Your task to perform on an android device: check android version Image 0: 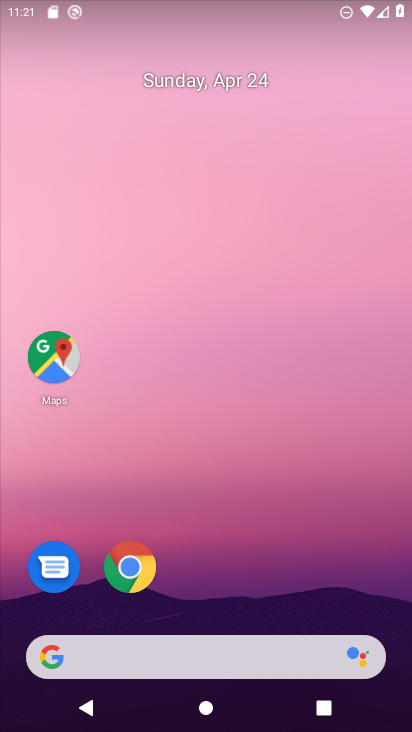
Step 0: drag from (91, 425) to (109, 10)
Your task to perform on an android device: check android version Image 1: 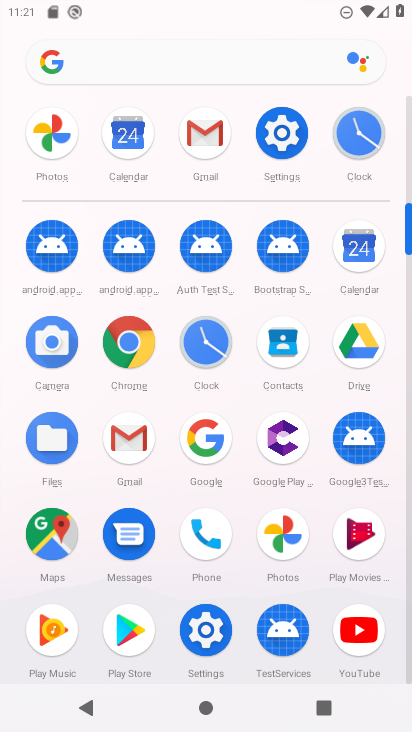
Step 1: drag from (241, 648) to (188, 189)
Your task to perform on an android device: check android version Image 2: 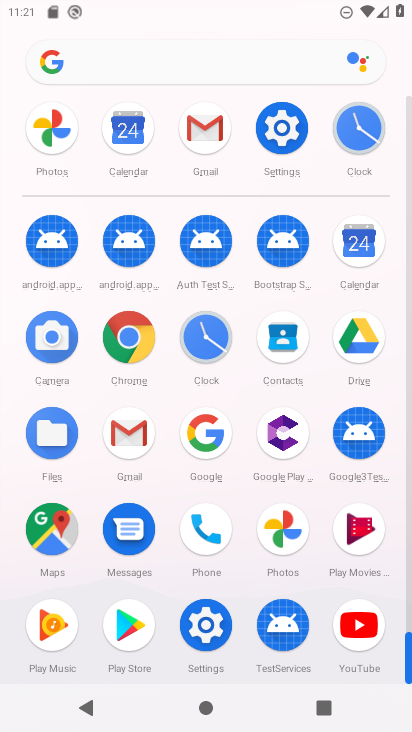
Step 2: click (215, 625)
Your task to perform on an android device: check android version Image 3: 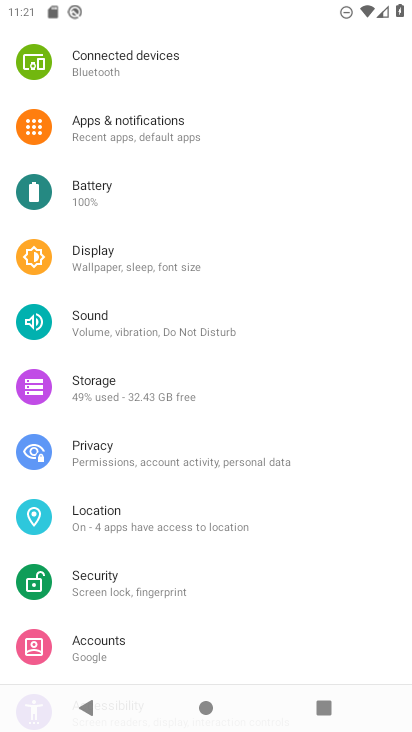
Step 3: drag from (215, 625) to (261, 28)
Your task to perform on an android device: check android version Image 4: 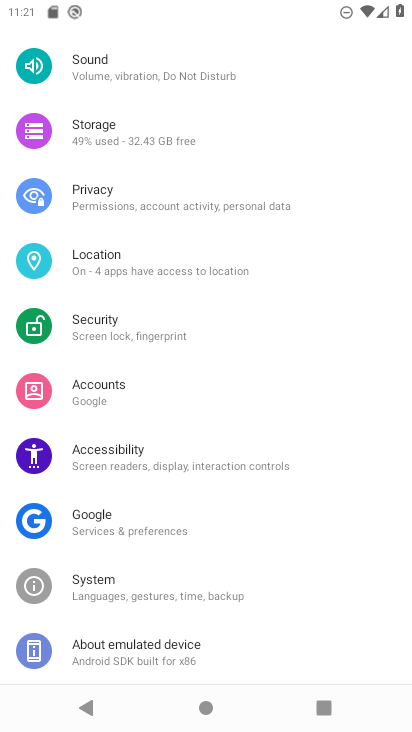
Step 4: drag from (270, 554) to (279, 146)
Your task to perform on an android device: check android version Image 5: 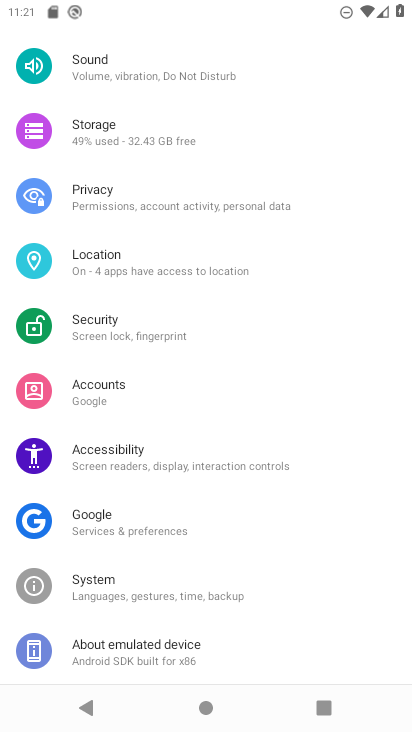
Step 5: click (242, 654)
Your task to perform on an android device: check android version Image 6: 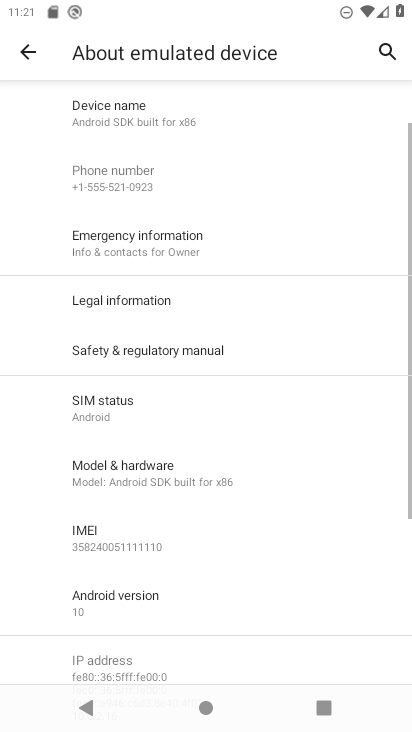
Step 6: drag from (240, 642) to (281, 295)
Your task to perform on an android device: check android version Image 7: 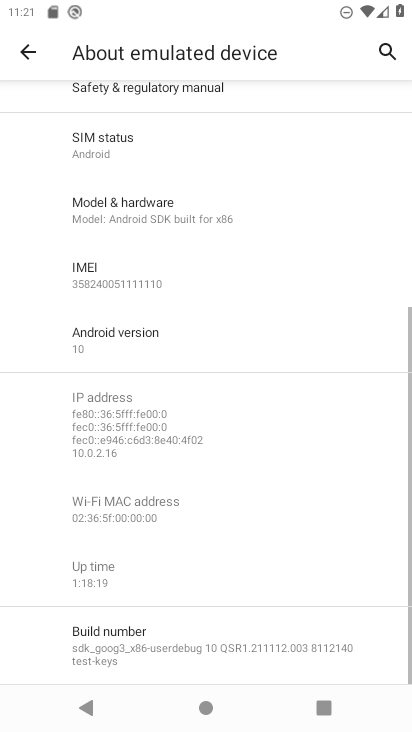
Step 7: drag from (250, 237) to (233, 415)
Your task to perform on an android device: check android version Image 8: 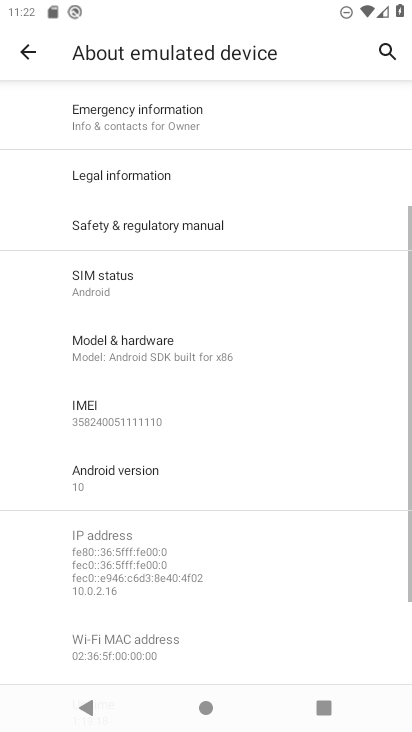
Step 8: click (141, 478)
Your task to perform on an android device: check android version Image 9: 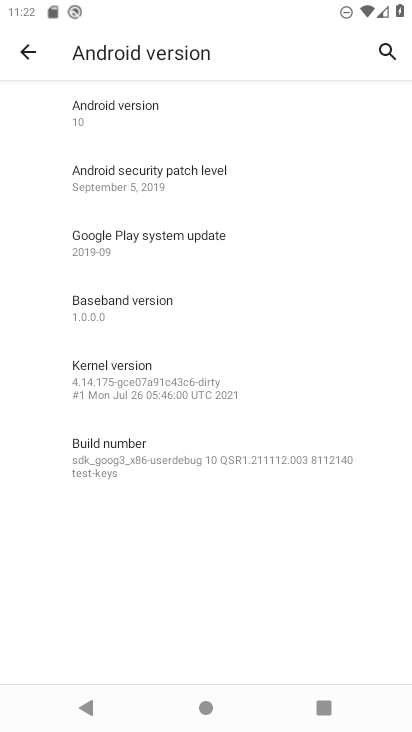
Step 9: task complete